Your task to perform on an android device: toggle location history Image 0: 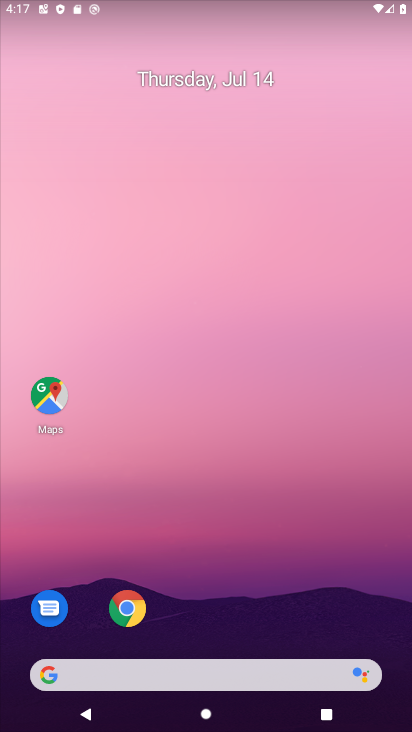
Step 0: drag from (28, 560) to (283, 127)
Your task to perform on an android device: toggle location history Image 1: 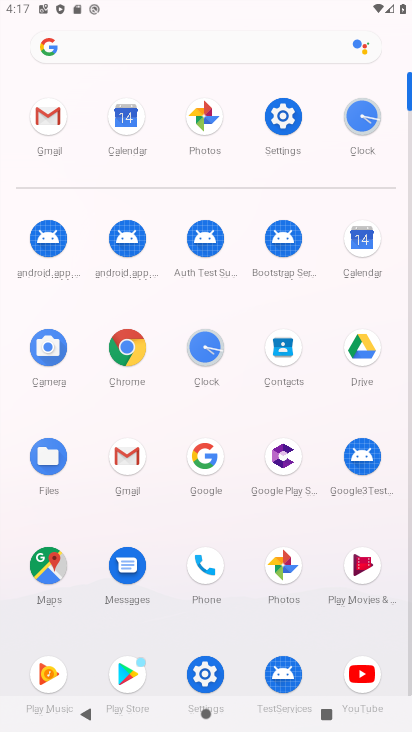
Step 1: click (287, 109)
Your task to perform on an android device: toggle location history Image 2: 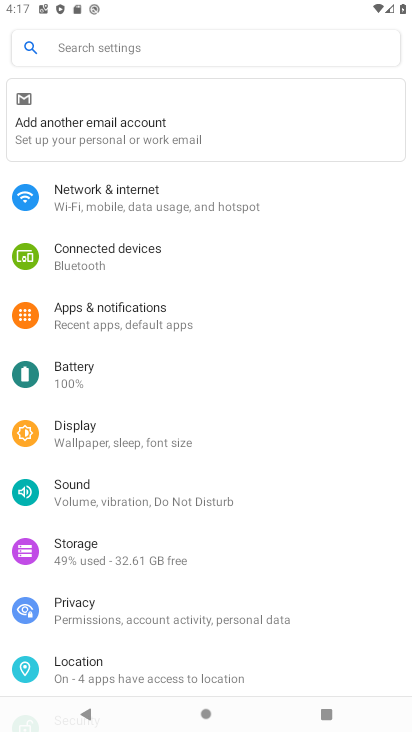
Step 2: click (135, 669)
Your task to perform on an android device: toggle location history Image 3: 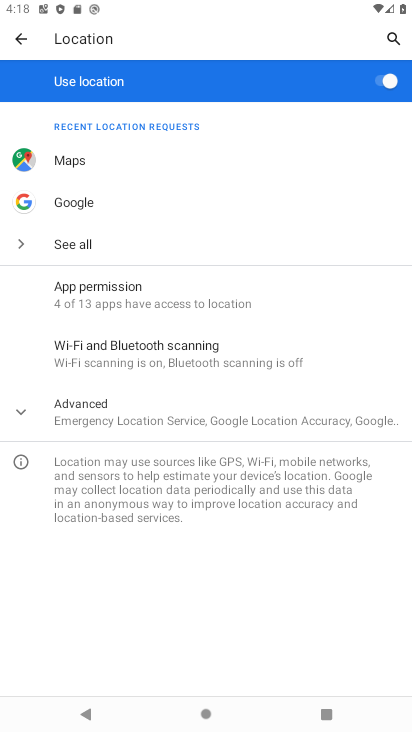
Step 3: click (205, 420)
Your task to perform on an android device: toggle location history Image 4: 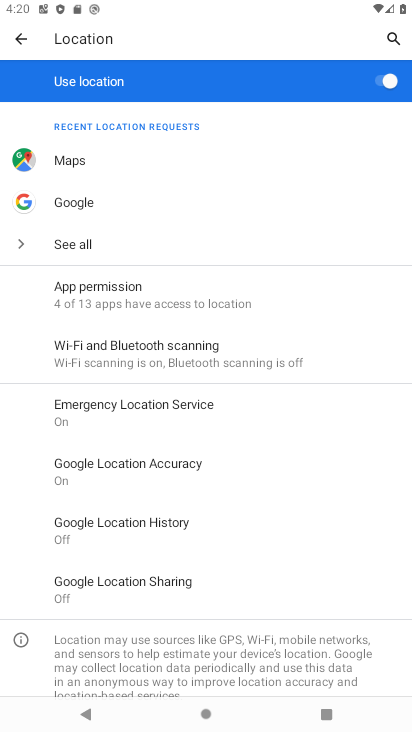
Step 4: drag from (45, 35) to (98, 531)
Your task to perform on an android device: toggle location history Image 5: 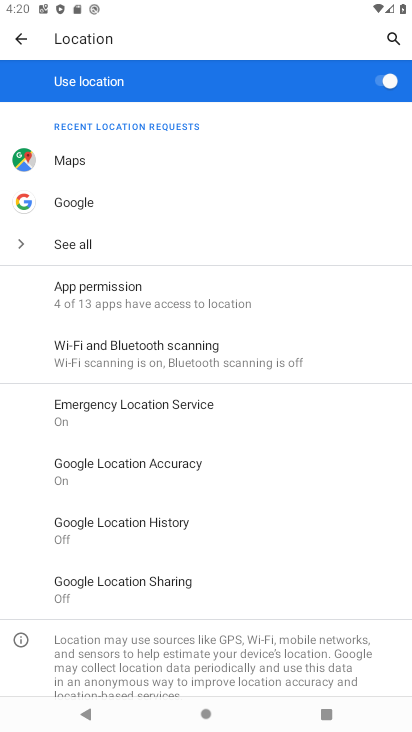
Step 5: drag from (45, 35) to (181, 533)
Your task to perform on an android device: toggle location history Image 6: 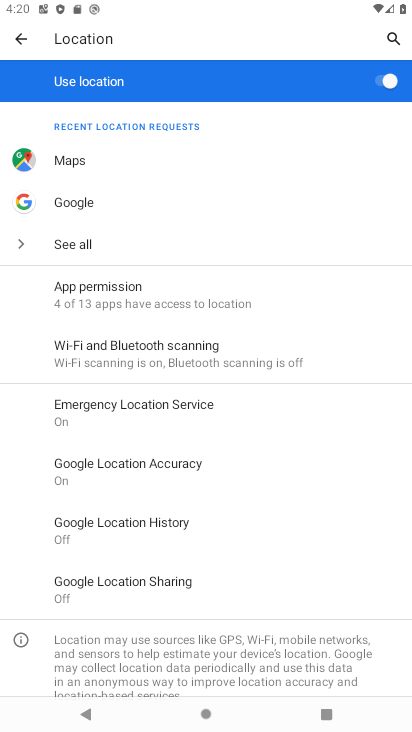
Step 6: click (142, 529)
Your task to perform on an android device: toggle location history Image 7: 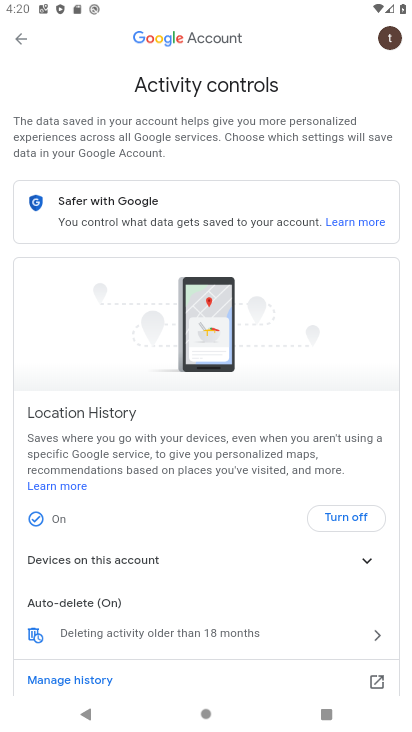
Step 7: drag from (143, 531) to (335, 552)
Your task to perform on an android device: toggle location history Image 8: 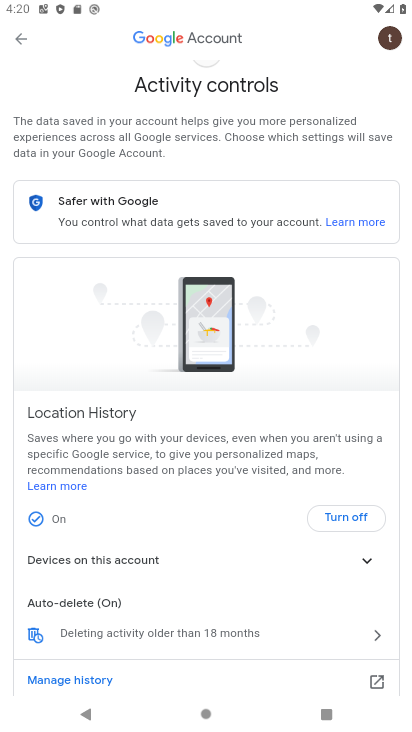
Step 8: drag from (143, 531) to (339, 525)
Your task to perform on an android device: toggle location history Image 9: 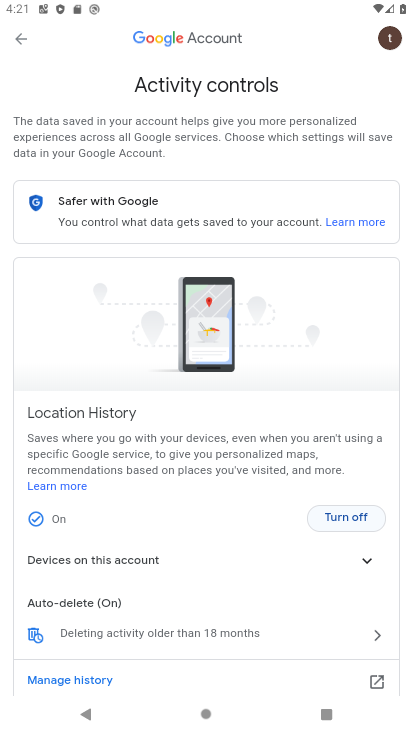
Step 9: drag from (143, 531) to (332, 514)
Your task to perform on an android device: toggle location history Image 10: 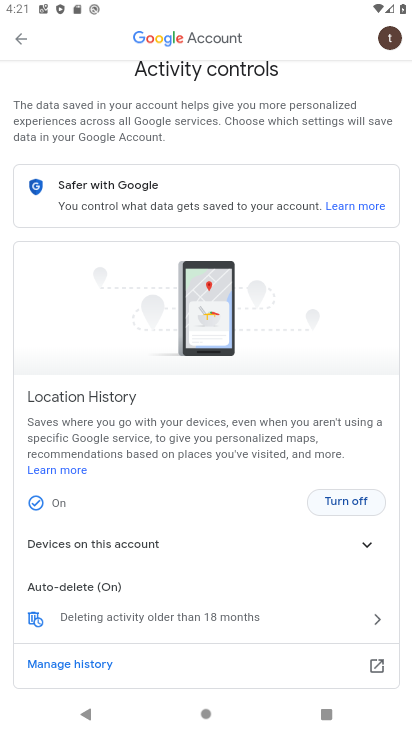
Step 10: click (333, 514)
Your task to perform on an android device: toggle location history Image 11: 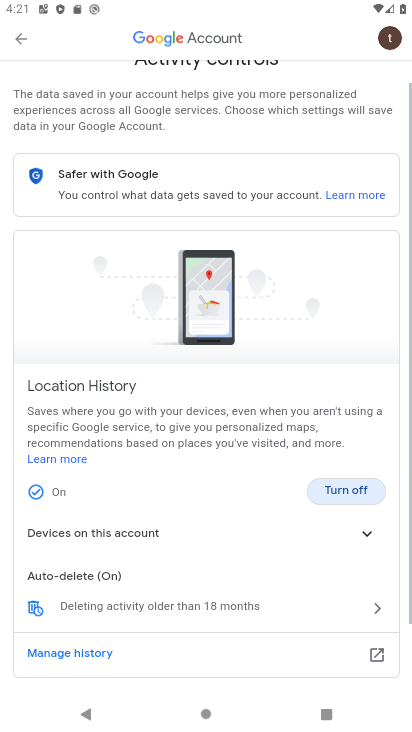
Step 11: click (338, 498)
Your task to perform on an android device: toggle location history Image 12: 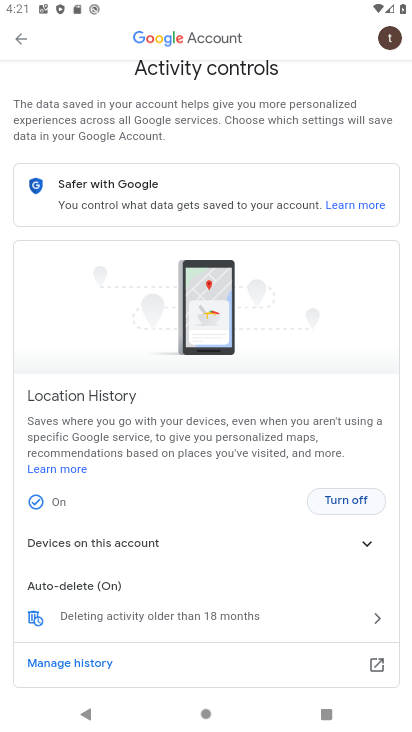
Step 12: click (328, 510)
Your task to perform on an android device: toggle location history Image 13: 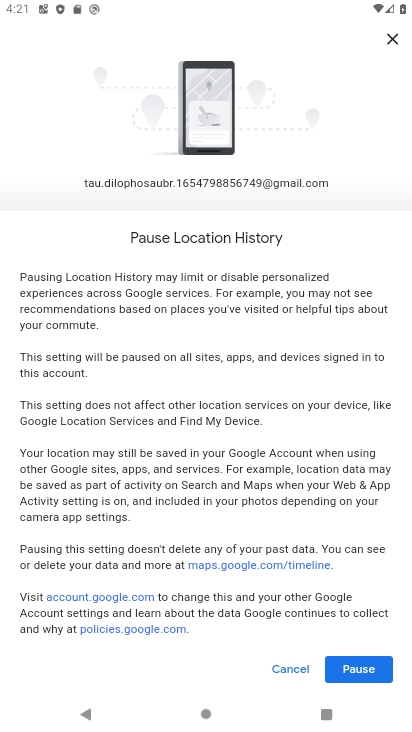
Step 13: click (360, 669)
Your task to perform on an android device: toggle location history Image 14: 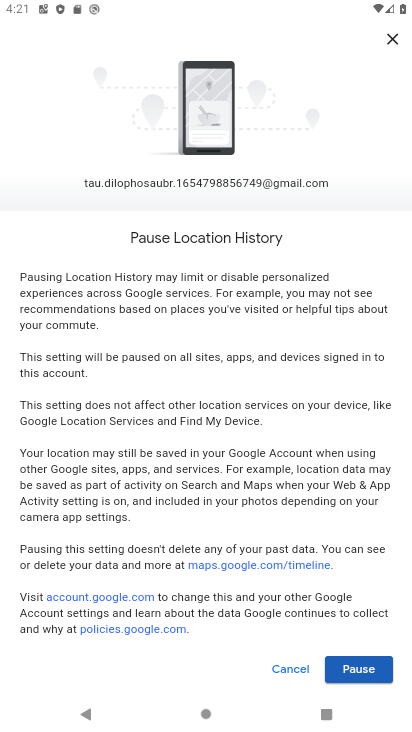
Step 14: click (348, 676)
Your task to perform on an android device: toggle location history Image 15: 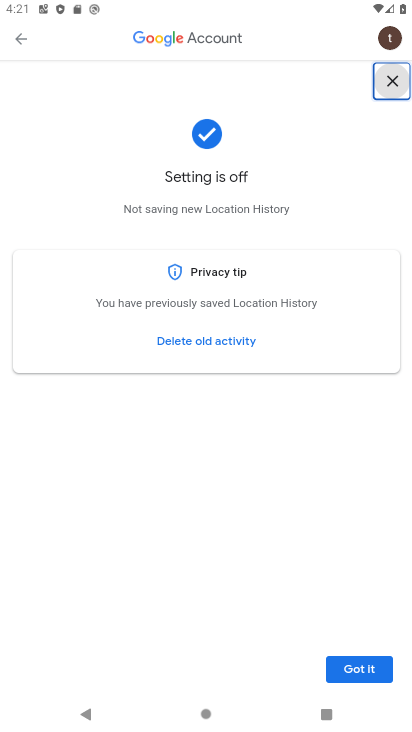
Step 15: task complete